Your task to perform on an android device: Go to calendar. Show me events next week Image 0: 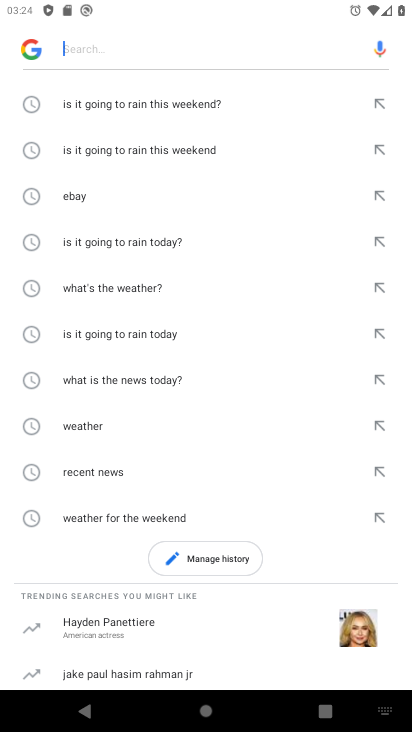
Step 0: task complete